Your task to perform on an android device: turn on location history Image 0: 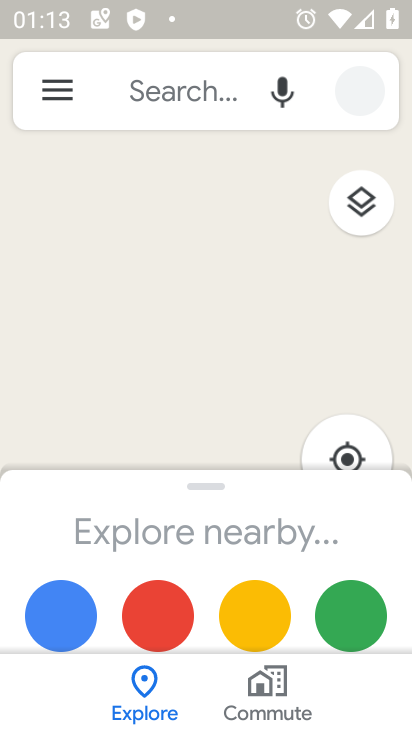
Step 0: press home button
Your task to perform on an android device: turn on location history Image 1: 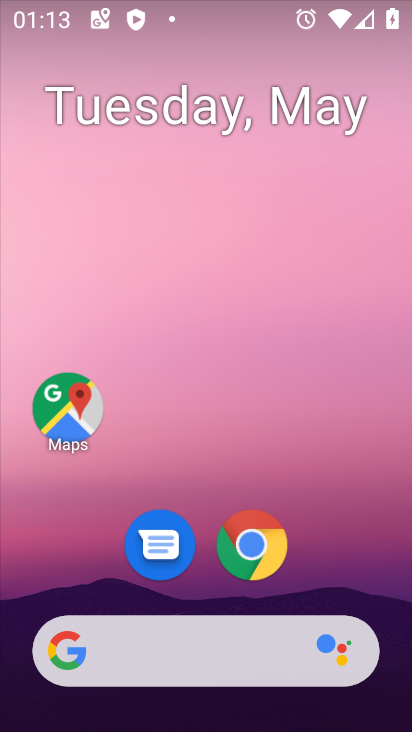
Step 1: drag from (317, 581) to (297, 49)
Your task to perform on an android device: turn on location history Image 2: 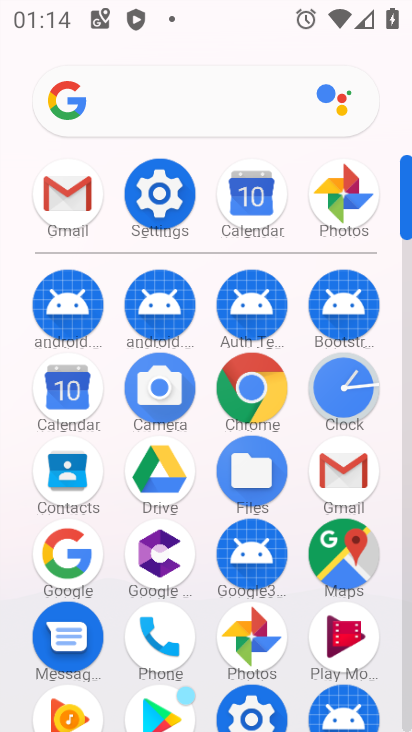
Step 2: click (176, 200)
Your task to perform on an android device: turn on location history Image 3: 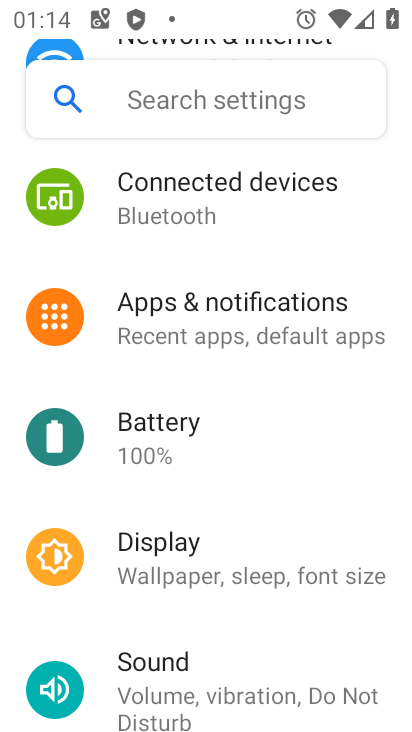
Step 3: drag from (231, 528) to (177, 184)
Your task to perform on an android device: turn on location history Image 4: 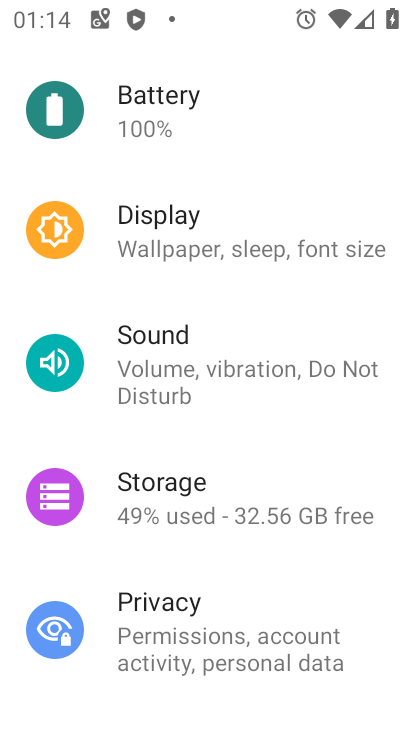
Step 4: drag from (208, 546) to (217, 285)
Your task to perform on an android device: turn on location history Image 5: 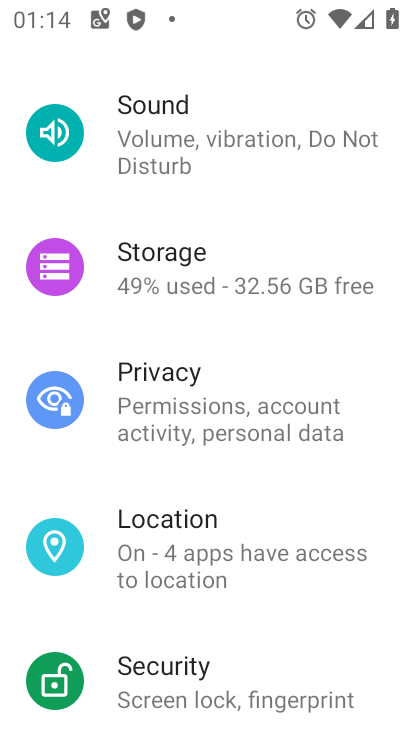
Step 5: click (209, 534)
Your task to perform on an android device: turn on location history Image 6: 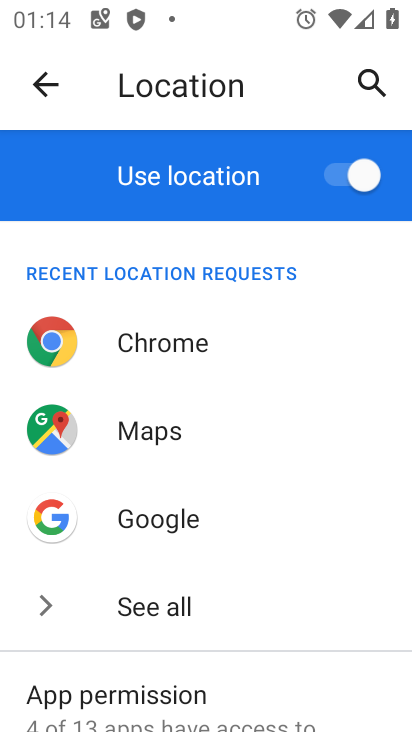
Step 6: drag from (309, 672) to (280, 164)
Your task to perform on an android device: turn on location history Image 7: 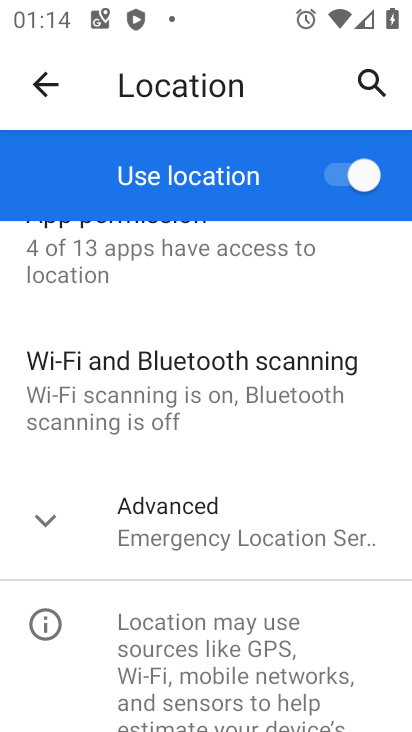
Step 7: click (290, 542)
Your task to perform on an android device: turn on location history Image 8: 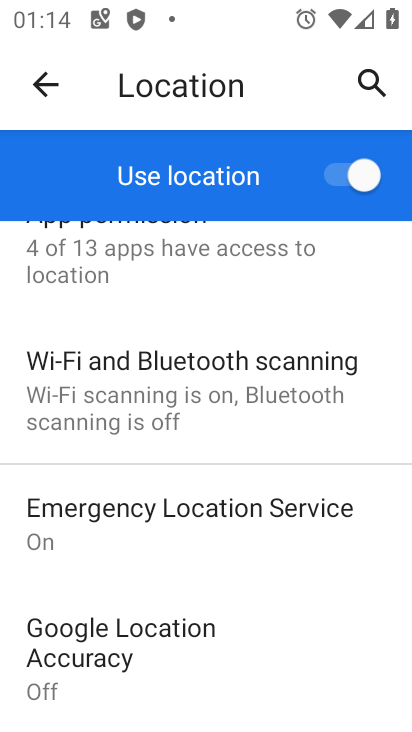
Step 8: drag from (270, 637) to (210, 345)
Your task to perform on an android device: turn on location history Image 9: 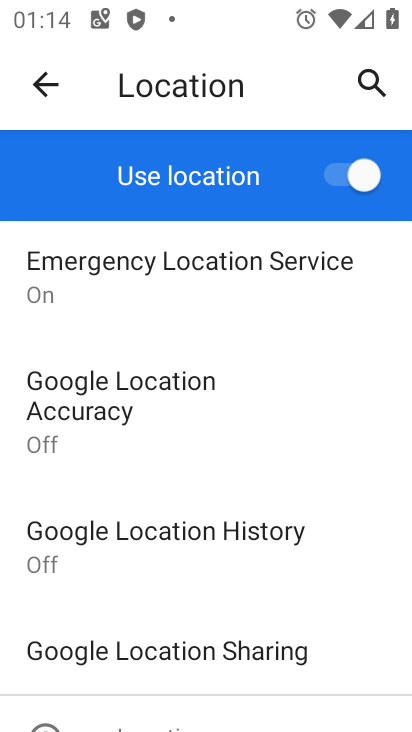
Step 9: click (193, 556)
Your task to perform on an android device: turn on location history Image 10: 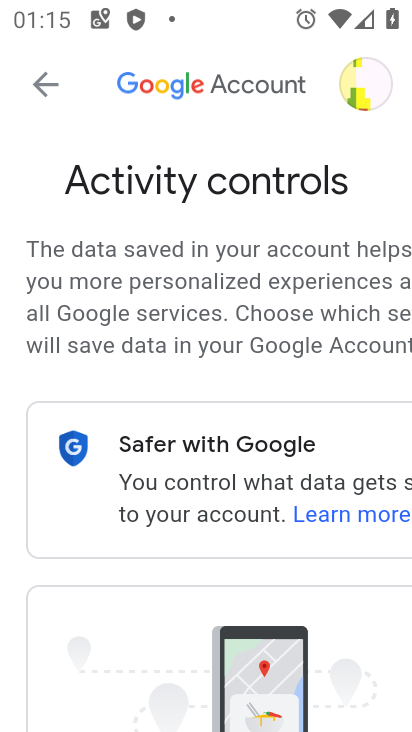
Step 10: task complete